Your task to perform on an android device: change notifications settings Image 0: 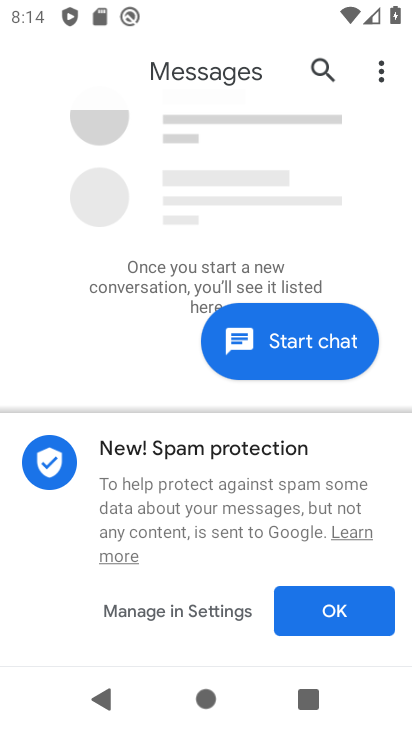
Step 0: press home button
Your task to perform on an android device: change notifications settings Image 1: 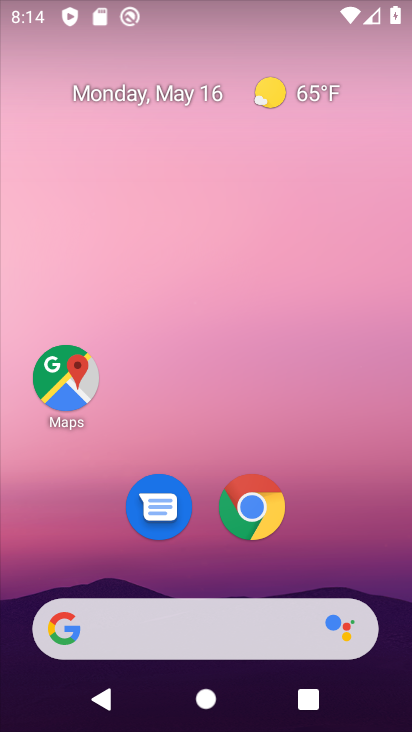
Step 1: drag from (162, 602) to (100, 9)
Your task to perform on an android device: change notifications settings Image 2: 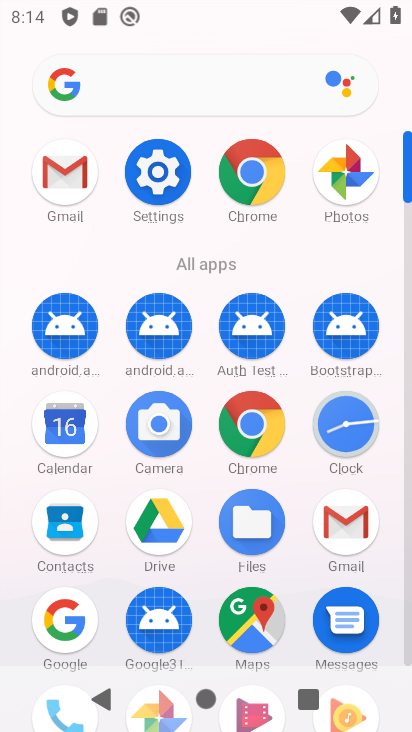
Step 2: click (143, 153)
Your task to perform on an android device: change notifications settings Image 3: 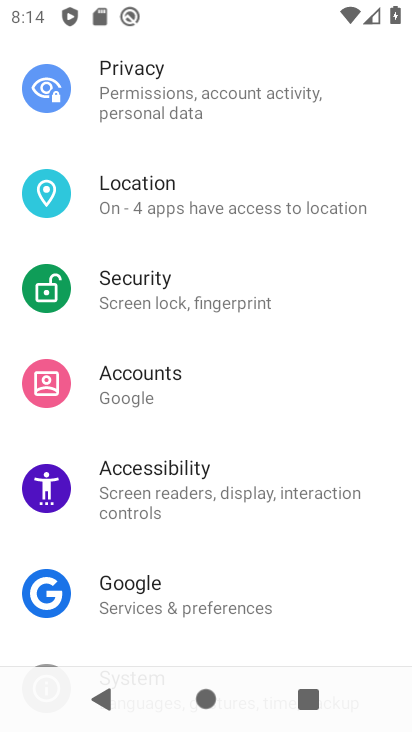
Step 3: drag from (229, 481) to (217, 730)
Your task to perform on an android device: change notifications settings Image 4: 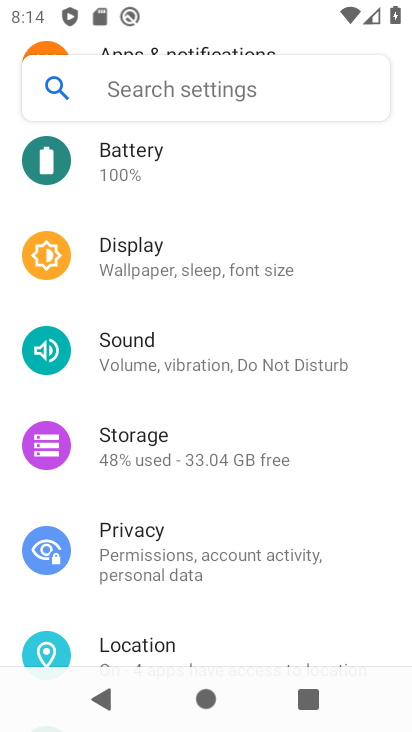
Step 4: drag from (179, 184) to (197, 494)
Your task to perform on an android device: change notifications settings Image 5: 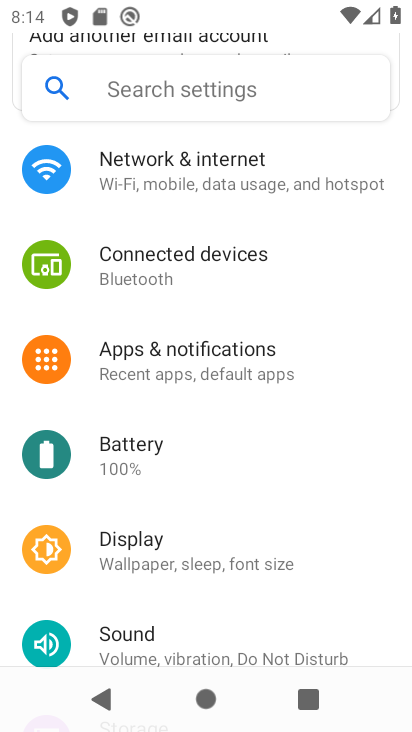
Step 5: click (178, 358)
Your task to perform on an android device: change notifications settings Image 6: 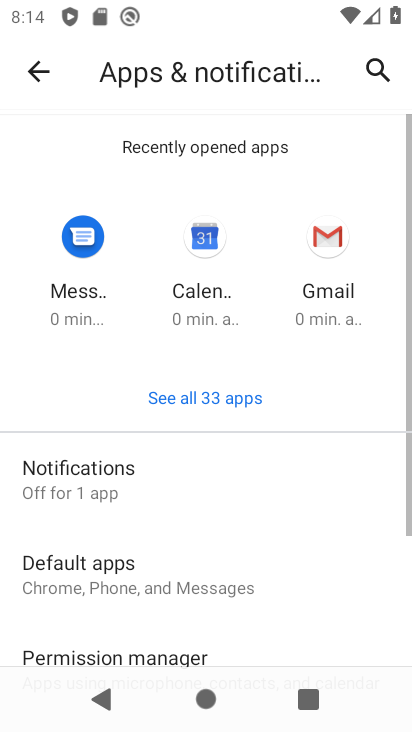
Step 6: click (129, 485)
Your task to perform on an android device: change notifications settings Image 7: 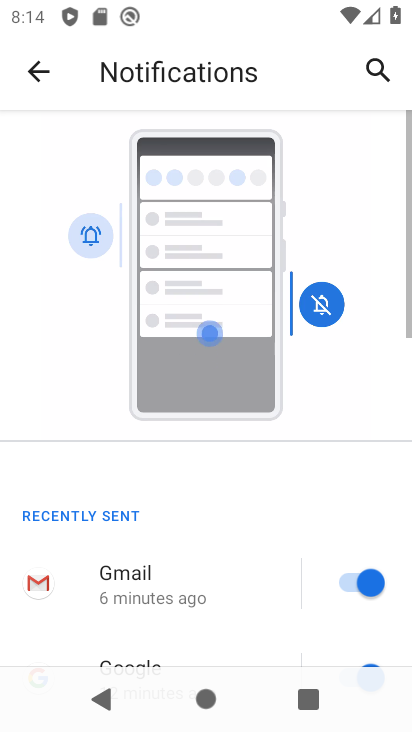
Step 7: task complete